Your task to perform on an android device: Open Wikipedia Image 0: 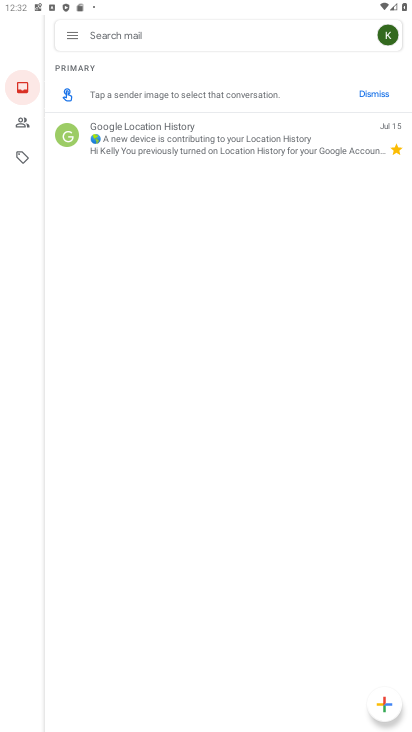
Step 0: press home button
Your task to perform on an android device: Open Wikipedia Image 1: 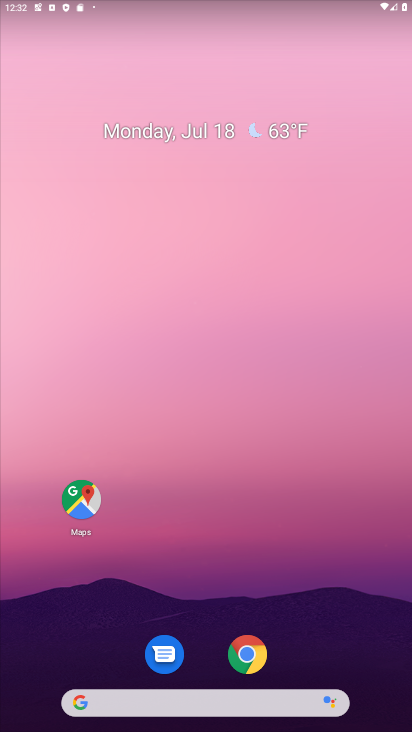
Step 1: click (242, 649)
Your task to perform on an android device: Open Wikipedia Image 2: 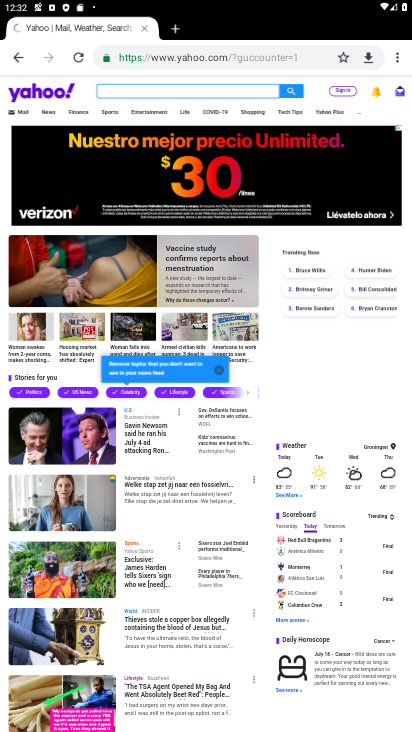
Step 2: click (177, 30)
Your task to perform on an android device: Open Wikipedia Image 3: 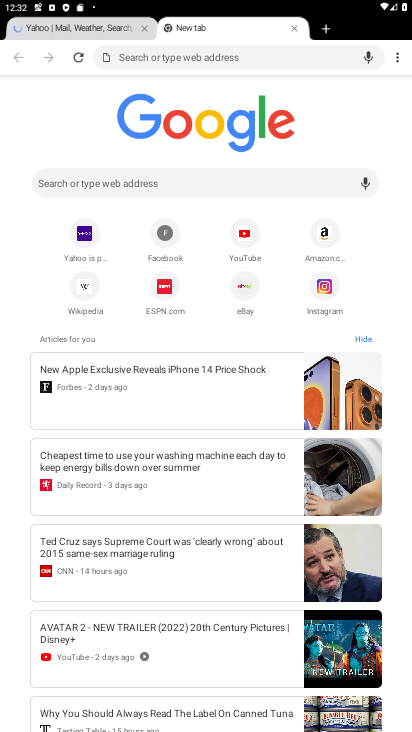
Step 3: click (86, 284)
Your task to perform on an android device: Open Wikipedia Image 4: 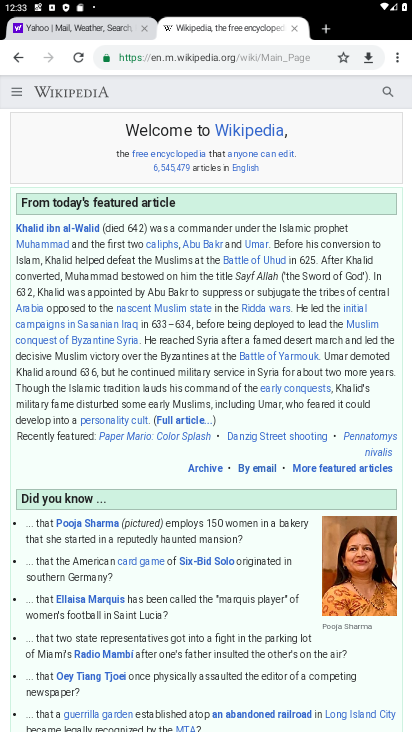
Step 4: task complete